Your task to perform on an android device: turn pop-ups on in chrome Image 0: 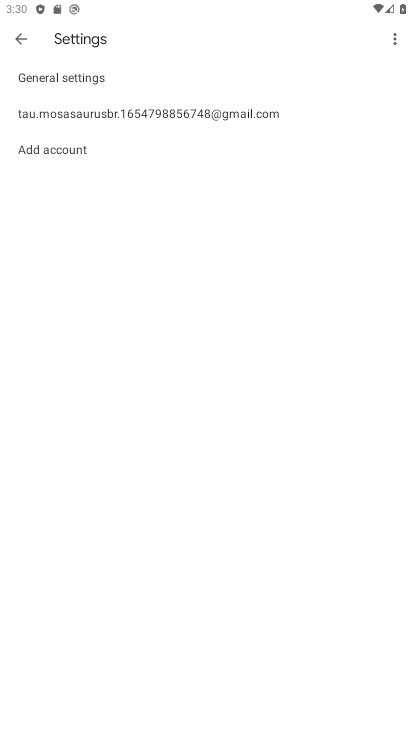
Step 0: press home button
Your task to perform on an android device: turn pop-ups on in chrome Image 1: 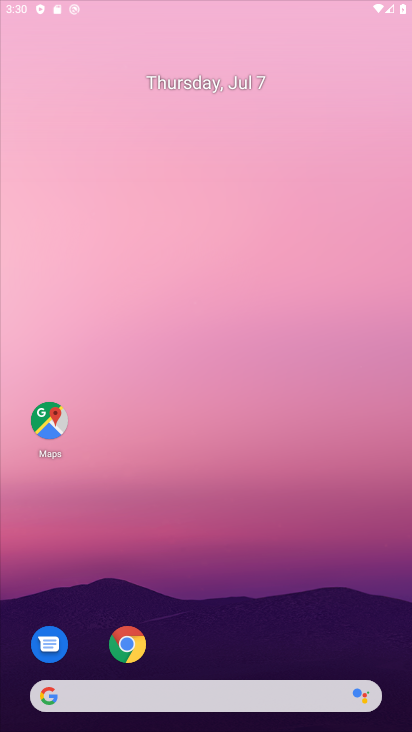
Step 1: drag from (360, 671) to (340, 79)
Your task to perform on an android device: turn pop-ups on in chrome Image 2: 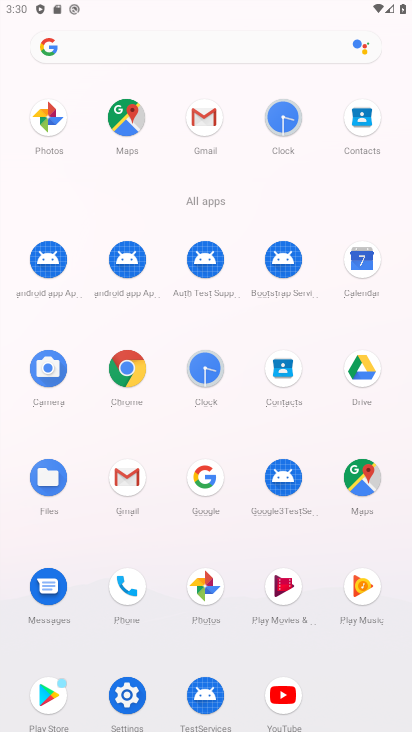
Step 2: click (137, 353)
Your task to perform on an android device: turn pop-ups on in chrome Image 3: 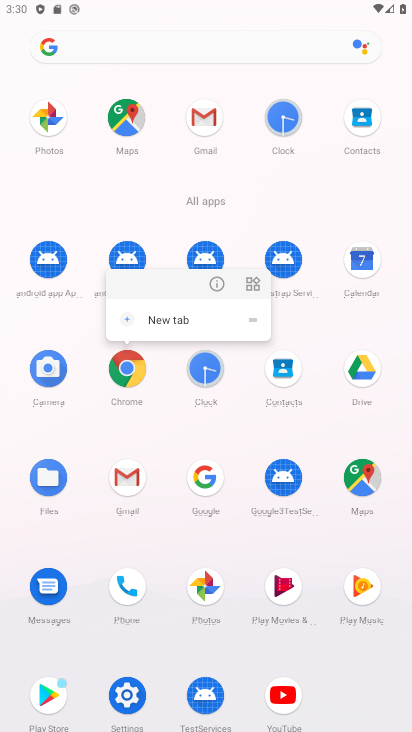
Step 3: click (137, 356)
Your task to perform on an android device: turn pop-ups on in chrome Image 4: 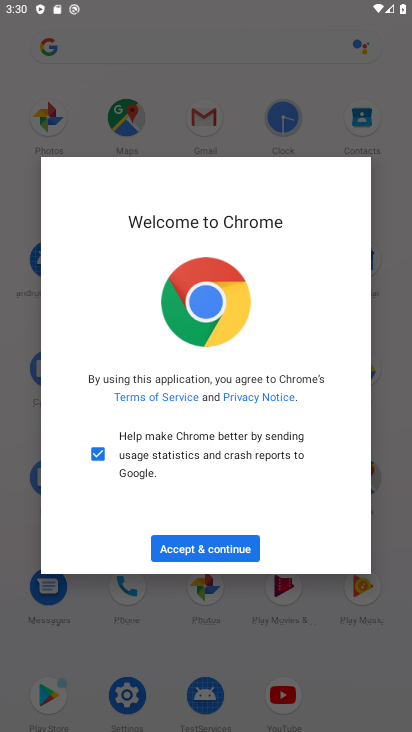
Step 4: click (171, 546)
Your task to perform on an android device: turn pop-ups on in chrome Image 5: 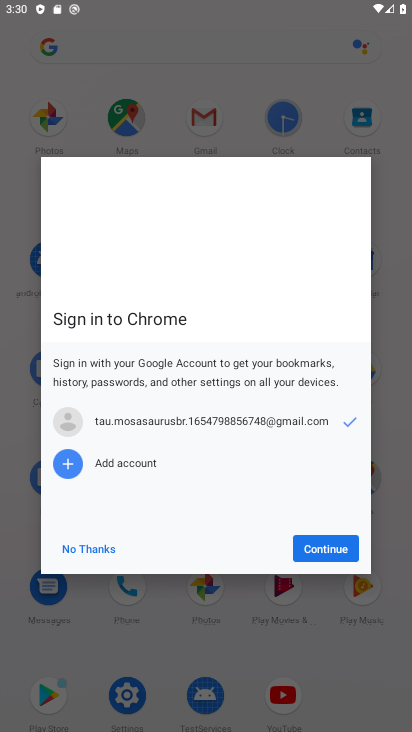
Step 5: click (318, 544)
Your task to perform on an android device: turn pop-ups on in chrome Image 6: 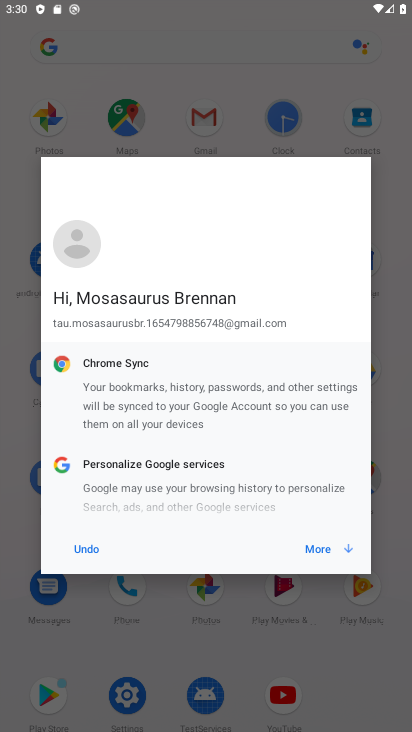
Step 6: click (317, 544)
Your task to perform on an android device: turn pop-ups on in chrome Image 7: 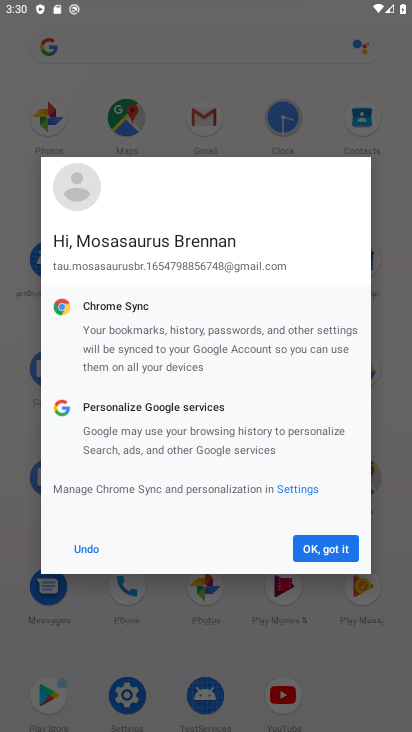
Step 7: click (315, 538)
Your task to perform on an android device: turn pop-ups on in chrome Image 8: 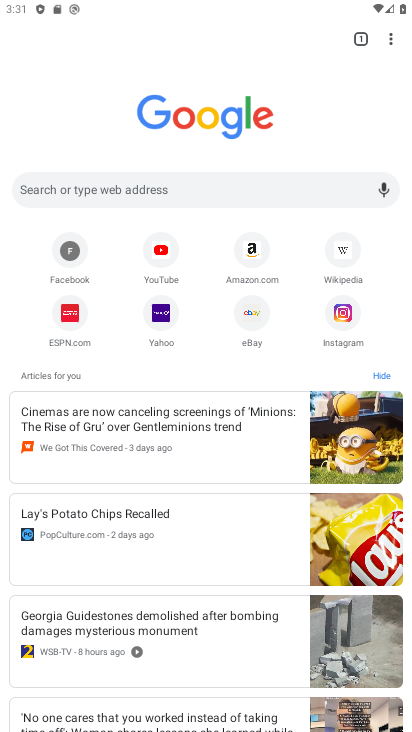
Step 8: click (404, 29)
Your task to perform on an android device: turn pop-ups on in chrome Image 9: 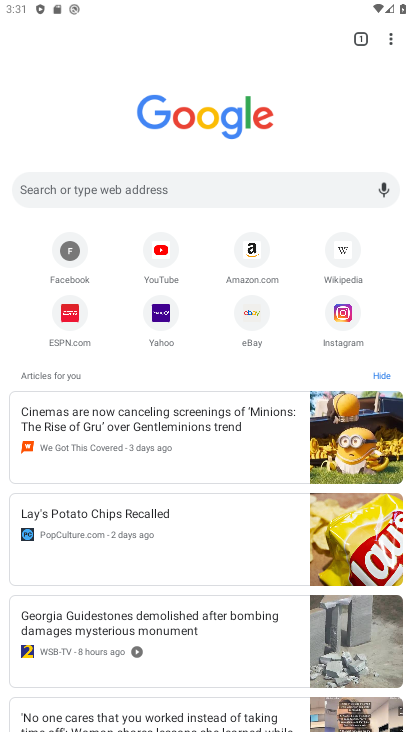
Step 9: drag from (391, 39) to (250, 318)
Your task to perform on an android device: turn pop-ups on in chrome Image 10: 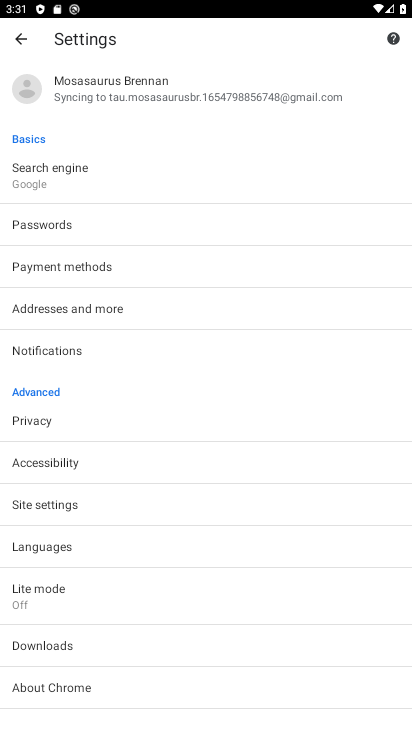
Step 10: click (51, 503)
Your task to perform on an android device: turn pop-ups on in chrome Image 11: 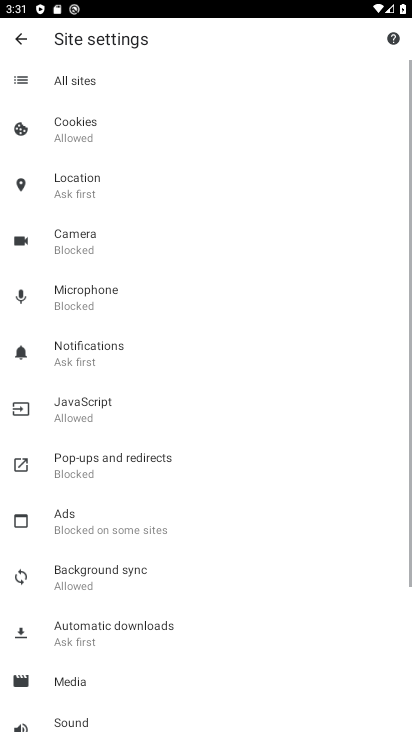
Step 11: click (111, 464)
Your task to perform on an android device: turn pop-ups on in chrome Image 12: 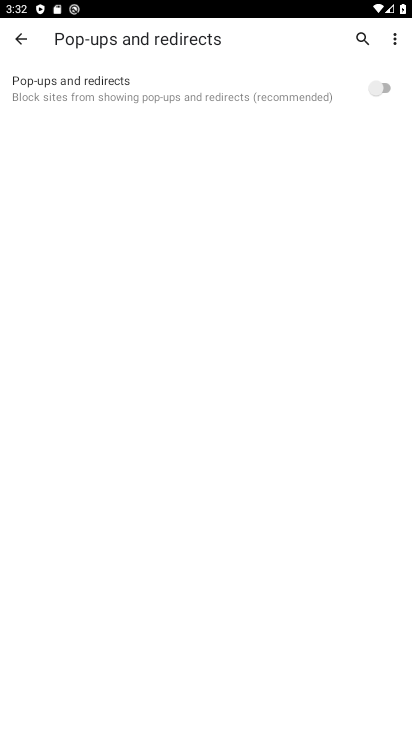
Step 12: click (306, 88)
Your task to perform on an android device: turn pop-ups on in chrome Image 13: 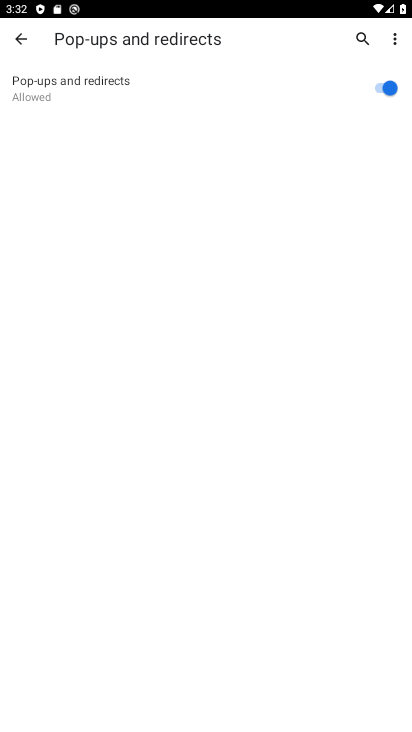
Step 13: task complete